Your task to perform on an android device: Go to battery settings Image 0: 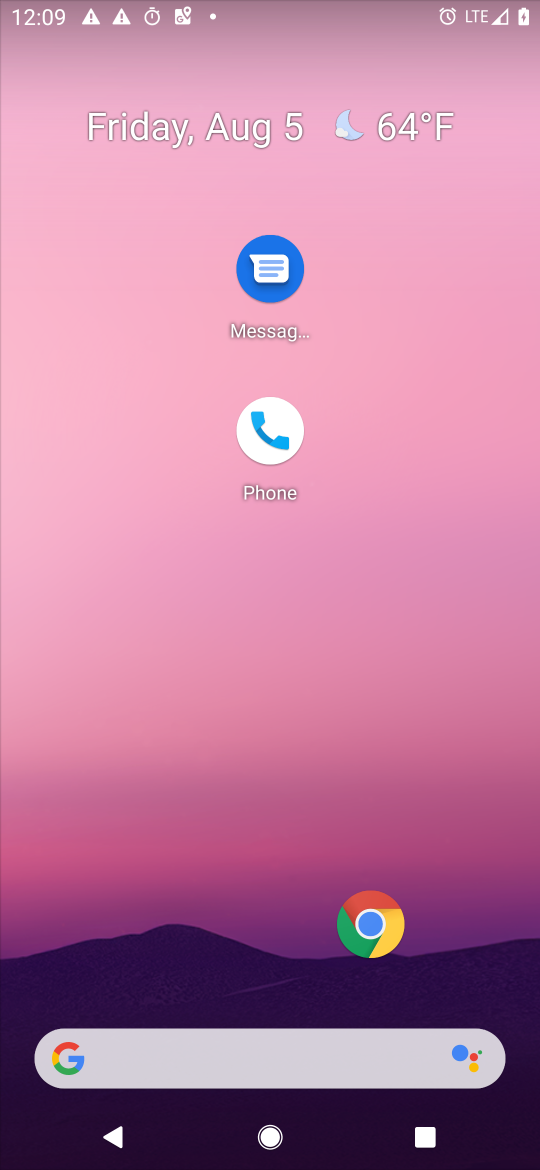
Step 0: drag from (281, 916) to (231, 395)
Your task to perform on an android device: Go to battery settings Image 1: 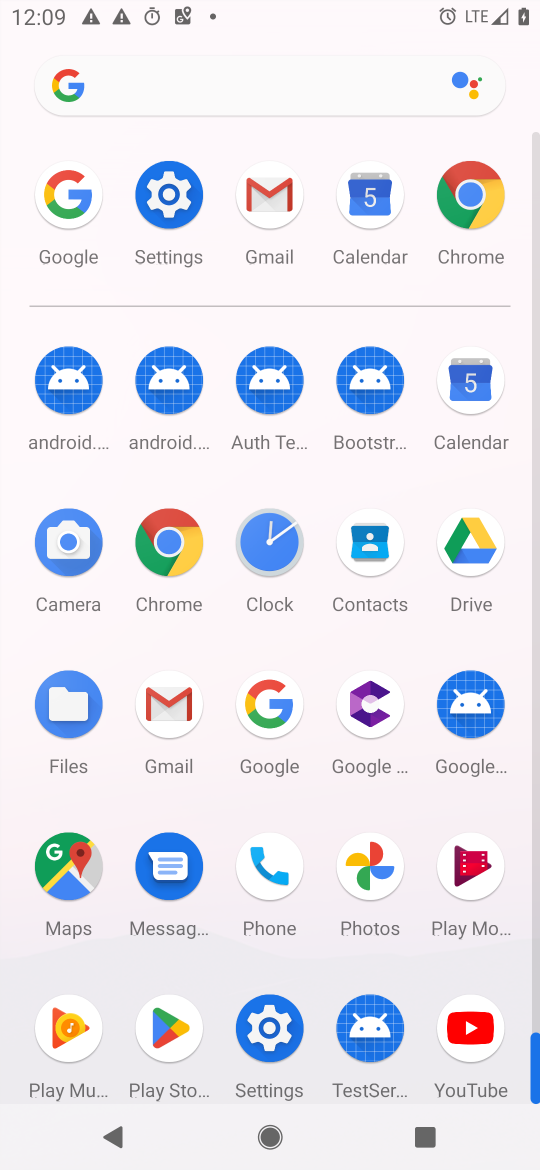
Step 1: click (272, 1027)
Your task to perform on an android device: Go to battery settings Image 2: 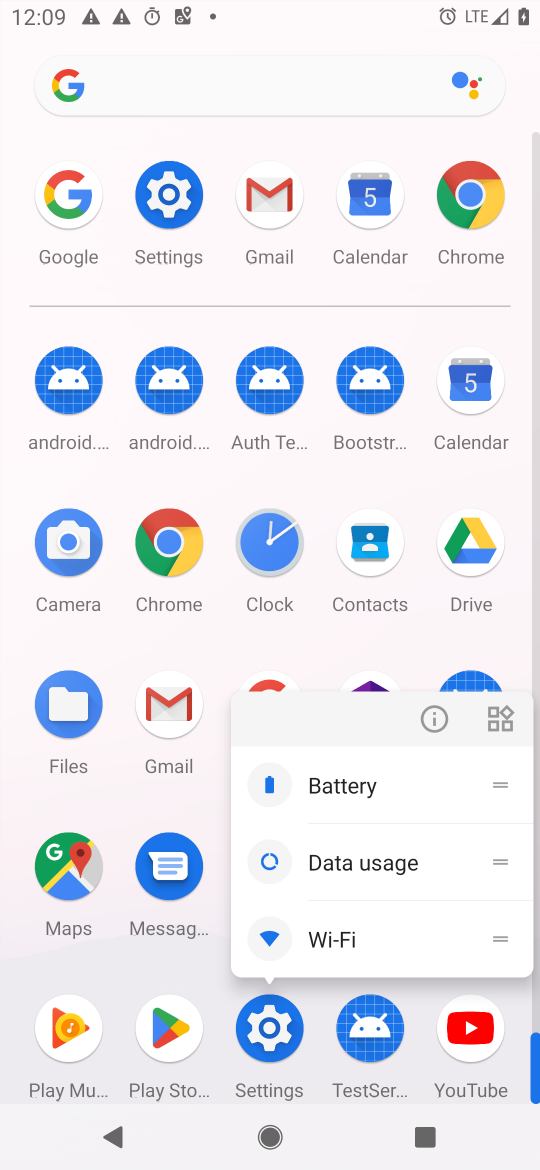
Step 2: click (423, 713)
Your task to perform on an android device: Go to battery settings Image 3: 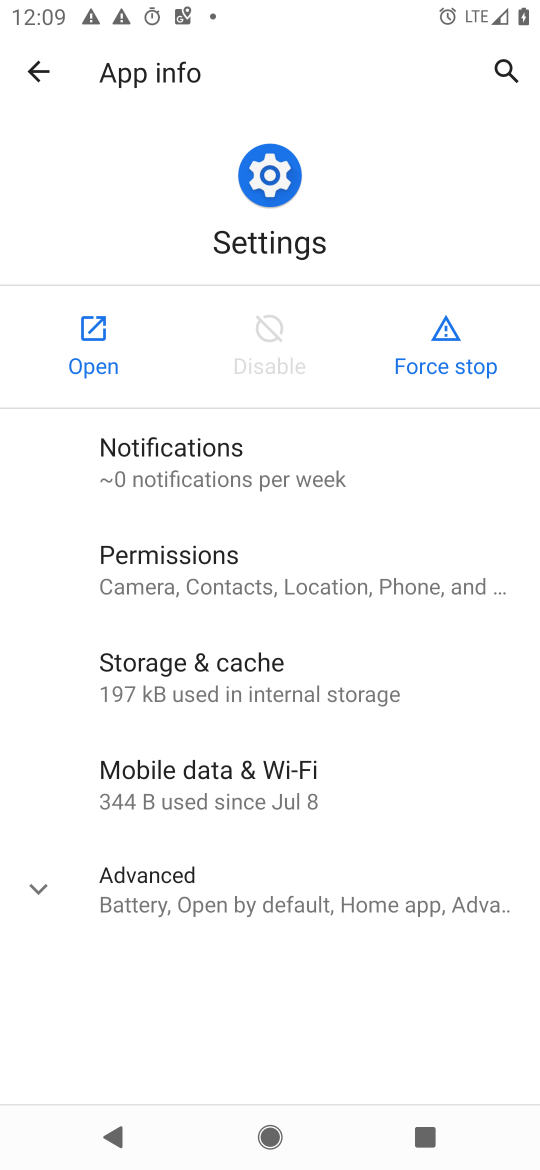
Step 3: click (107, 334)
Your task to perform on an android device: Go to battery settings Image 4: 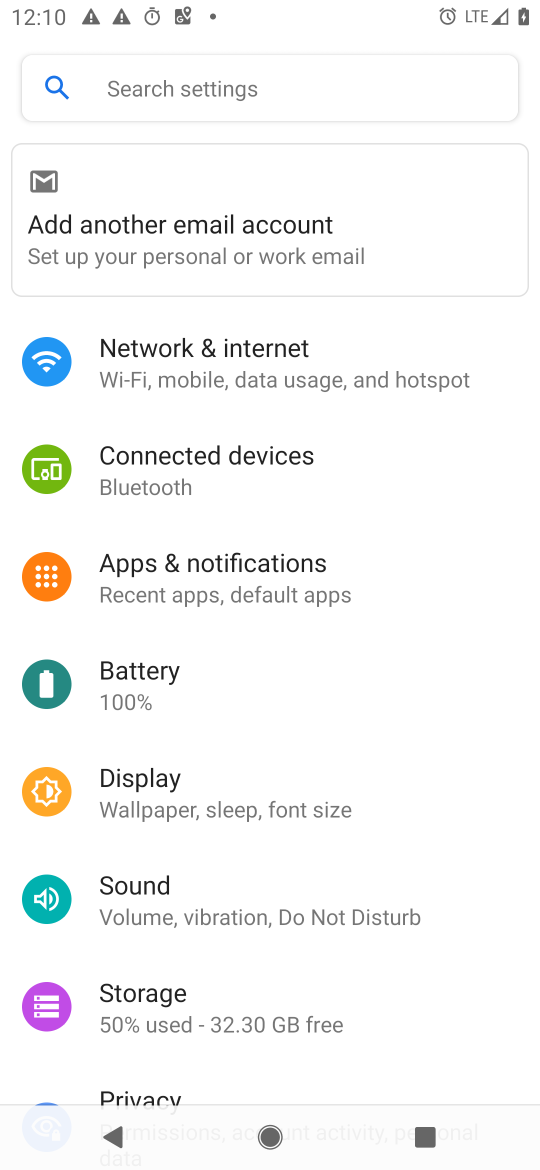
Step 4: click (159, 694)
Your task to perform on an android device: Go to battery settings Image 5: 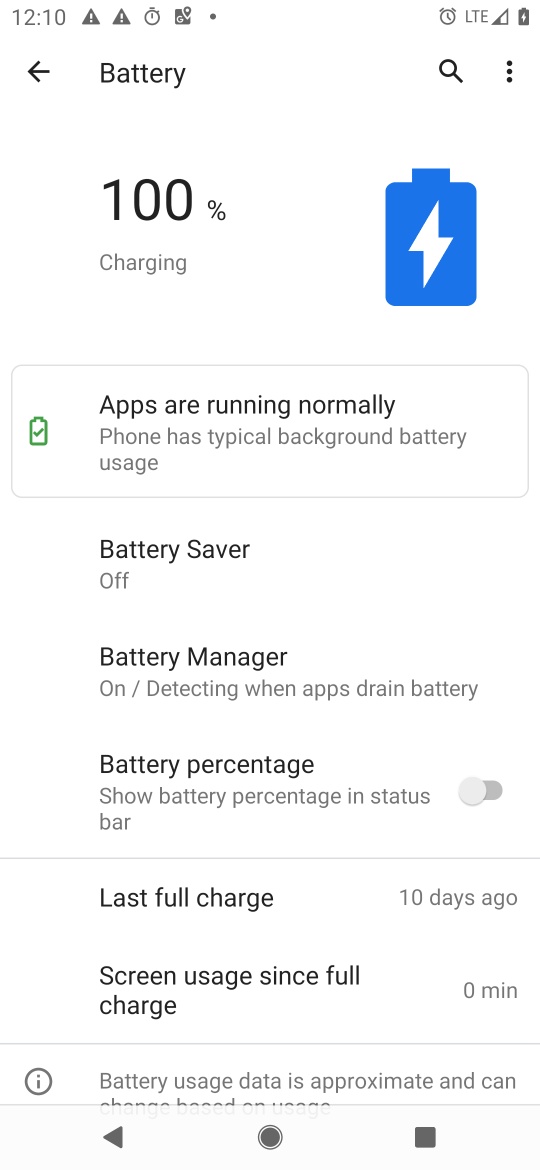
Step 5: task complete